Your task to perform on an android device: set the stopwatch Image 0: 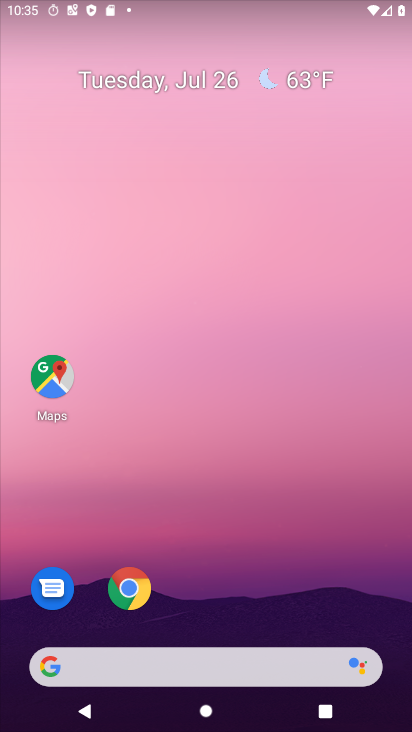
Step 0: drag from (267, 628) to (287, 74)
Your task to perform on an android device: set the stopwatch Image 1: 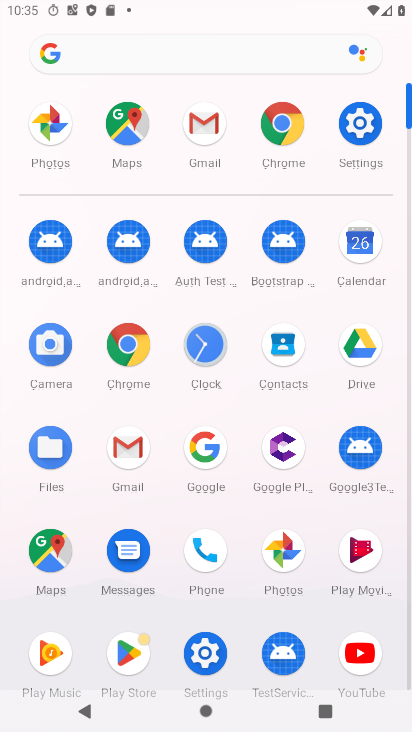
Step 1: click (197, 359)
Your task to perform on an android device: set the stopwatch Image 2: 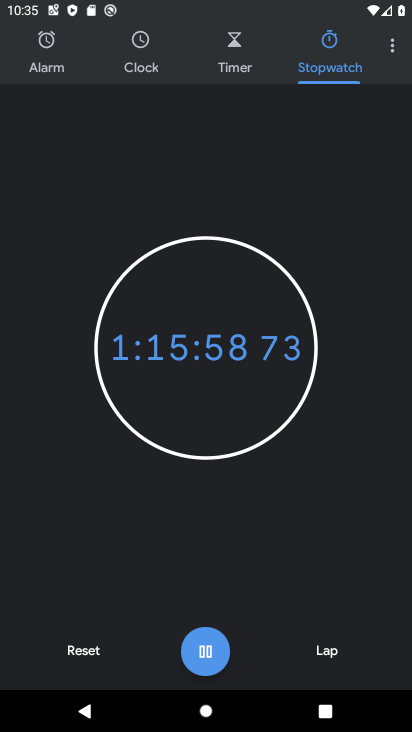
Step 2: task complete